Your task to perform on an android device: turn on translation in the chrome app Image 0: 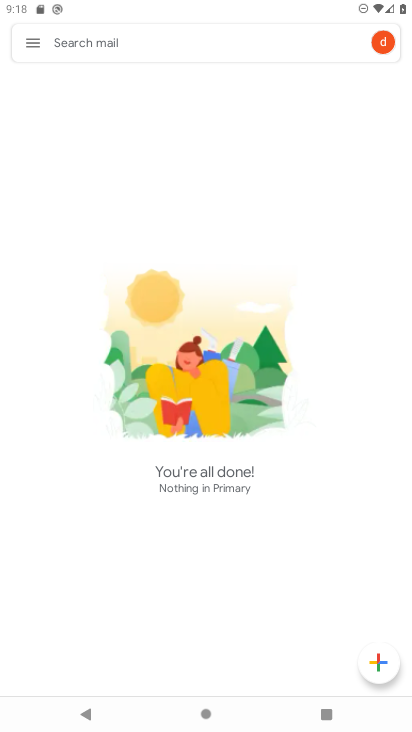
Step 0: press home button
Your task to perform on an android device: turn on translation in the chrome app Image 1: 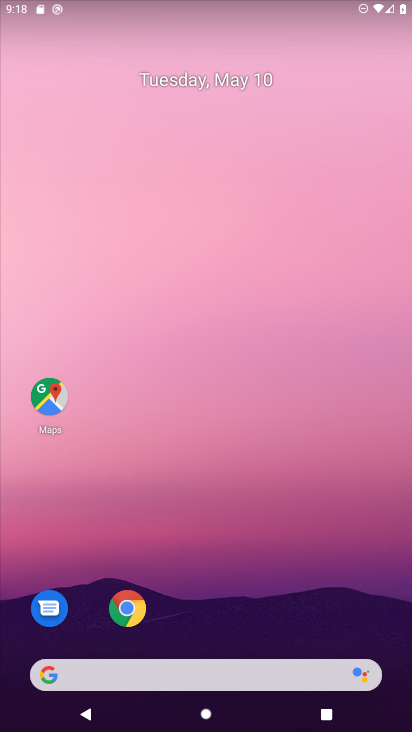
Step 1: drag from (379, 611) to (301, 129)
Your task to perform on an android device: turn on translation in the chrome app Image 2: 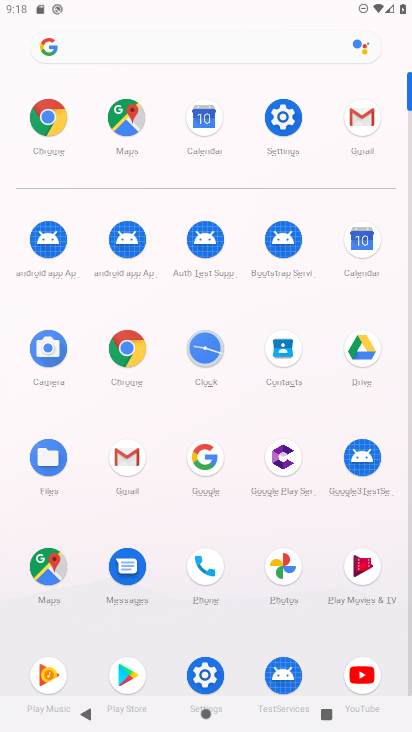
Step 2: click (133, 347)
Your task to perform on an android device: turn on translation in the chrome app Image 3: 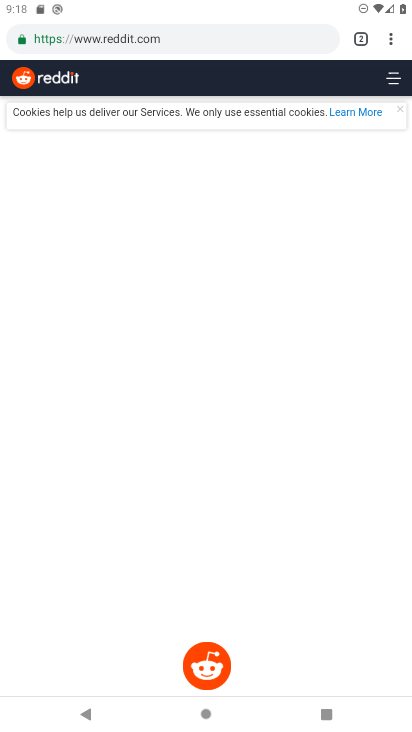
Step 3: press back button
Your task to perform on an android device: turn on translation in the chrome app Image 4: 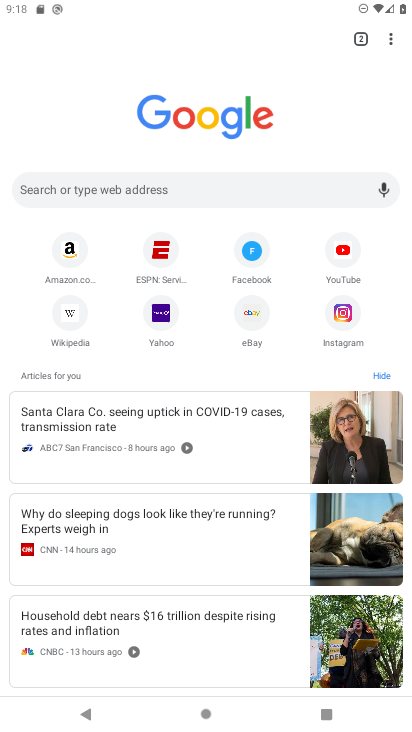
Step 4: click (388, 32)
Your task to perform on an android device: turn on translation in the chrome app Image 5: 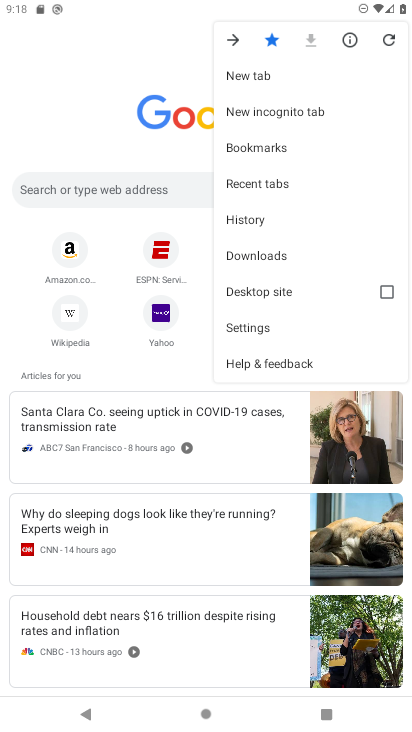
Step 5: click (289, 327)
Your task to perform on an android device: turn on translation in the chrome app Image 6: 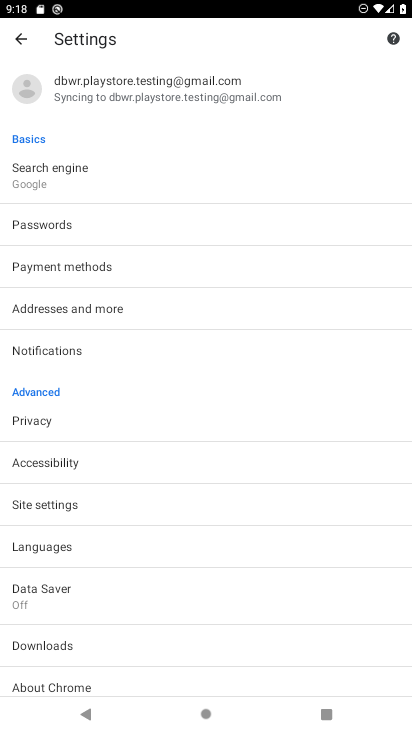
Step 6: click (122, 558)
Your task to perform on an android device: turn on translation in the chrome app Image 7: 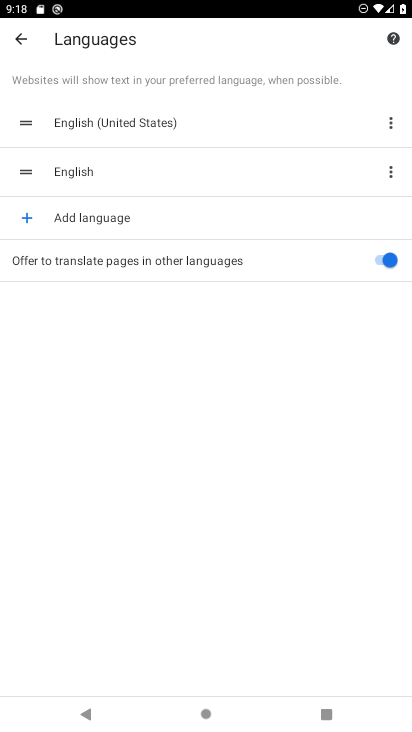
Step 7: task complete